Your task to perform on an android device: Do I have any events today? Image 0: 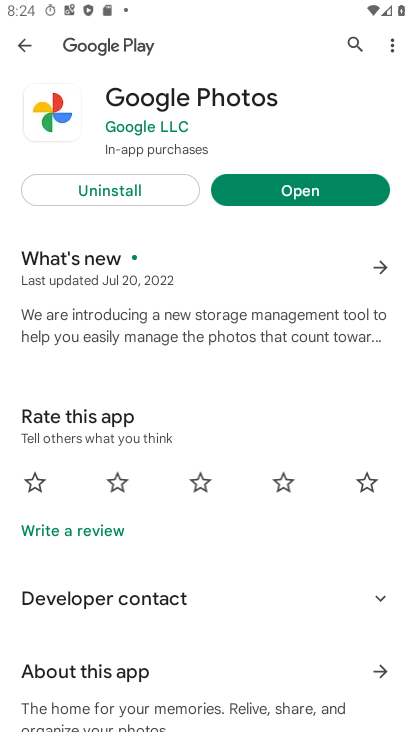
Step 0: press home button
Your task to perform on an android device: Do I have any events today? Image 1: 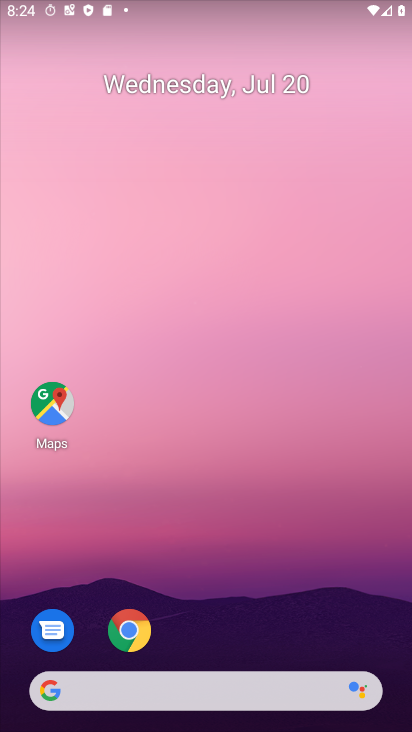
Step 1: drag from (253, 614) to (356, 203)
Your task to perform on an android device: Do I have any events today? Image 2: 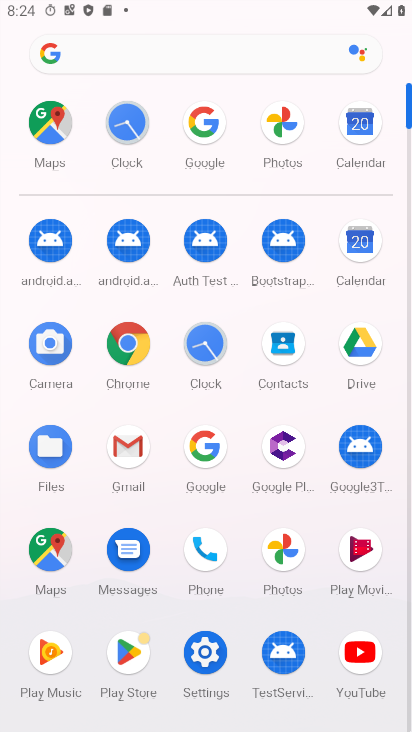
Step 2: click (356, 265)
Your task to perform on an android device: Do I have any events today? Image 3: 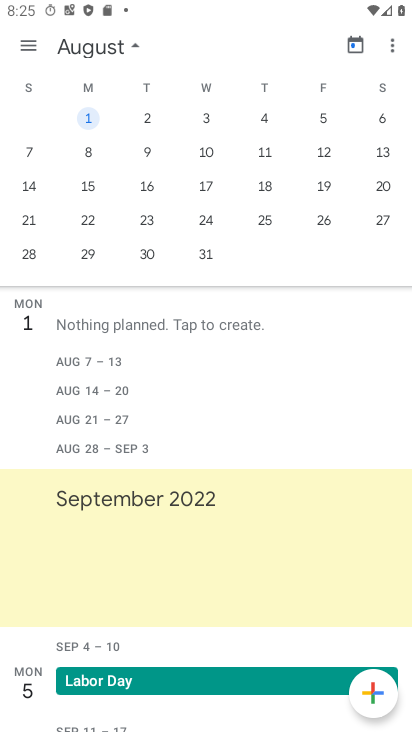
Step 3: drag from (87, 180) to (391, 186)
Your task to perform on an android device: Do I have any events today? Image 4: 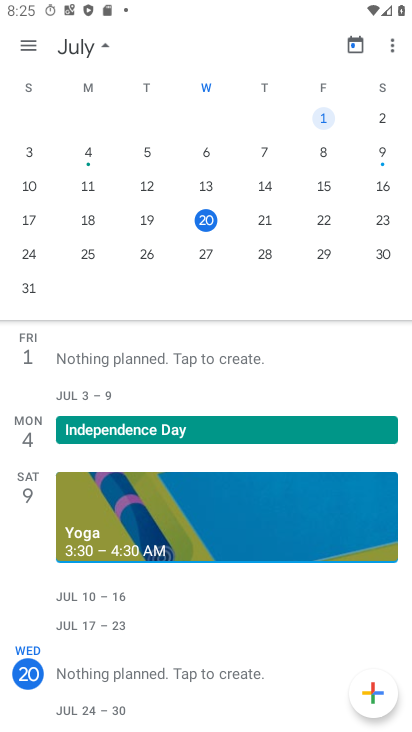
Step 4: click (208, 223)
Your task to perform on an android device: Do I have any events today? Image 5: 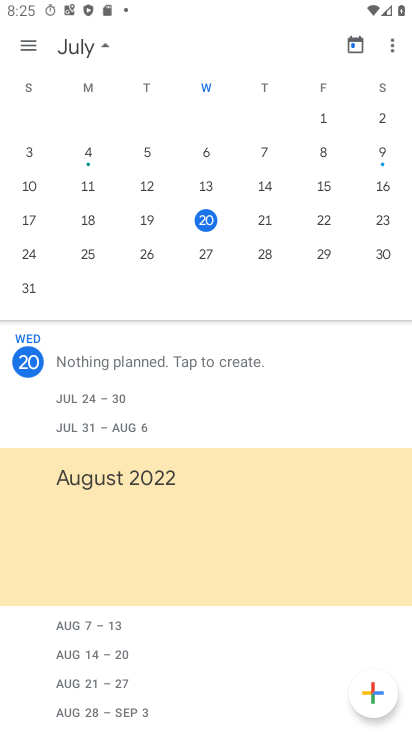
Step 5: task complete